Your task to perform on an android device: move a message to another label in the gmail app Image 0: 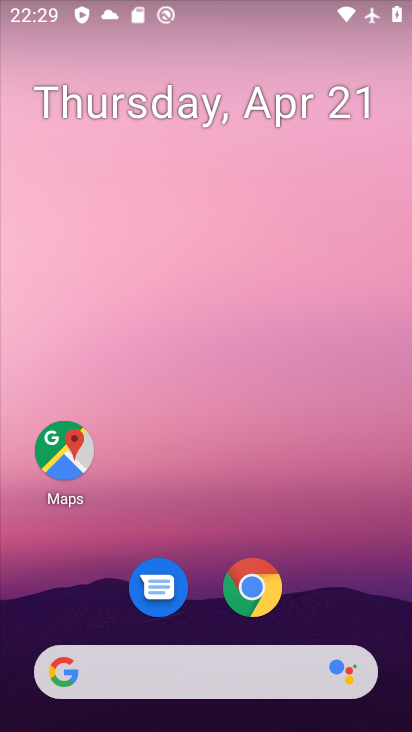
Step 0: drag from (356, 512) to (361, 255)
Your task to perform on an android device: move a message to another label in the gmail app Image 1: 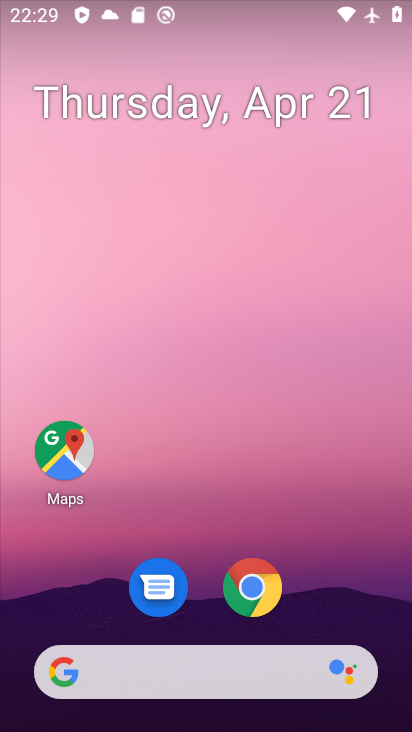
Step 1: drag from (348, 552) to (365, 237)
Your task to perform on an android device: move a message to another label in the gmail app Image 2: 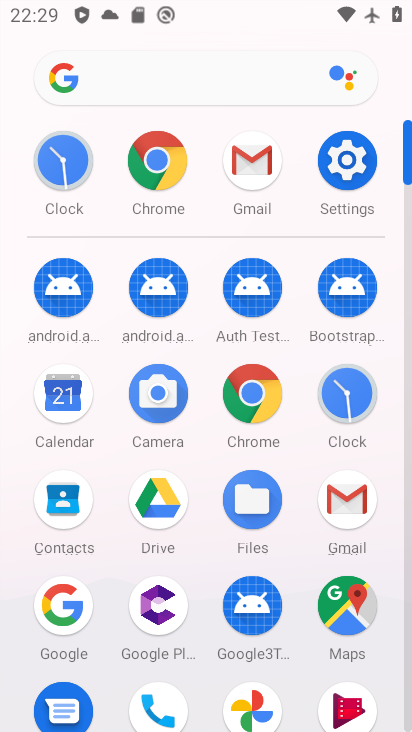
Step 2: click (350, 510)
Your task to perform on an android device: move a message to another label in the gmail app Image 3: 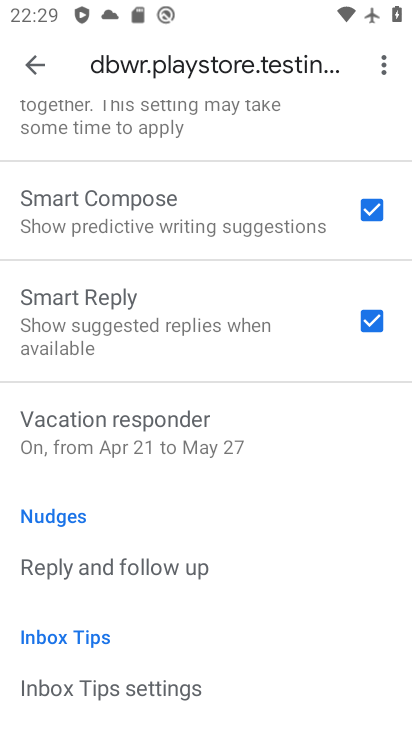
Step 3: click (31, 72)
Your task to perform on an android device: move a message to another label in the gmail app Image 4: 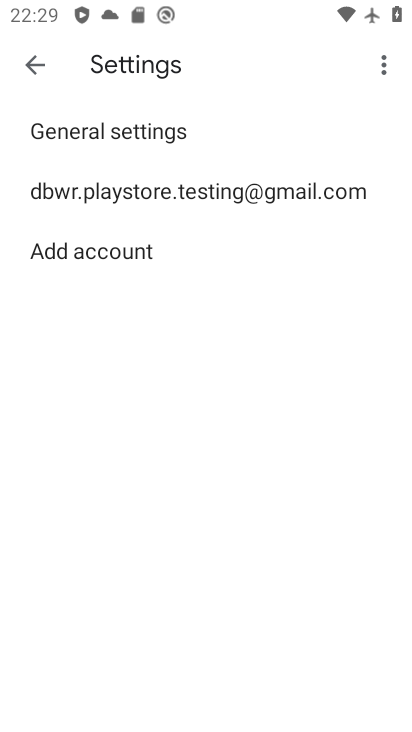
Step 4: click (31, 72)
Your task to perform on an android device: move a message to another label in the gmail app Image 5: 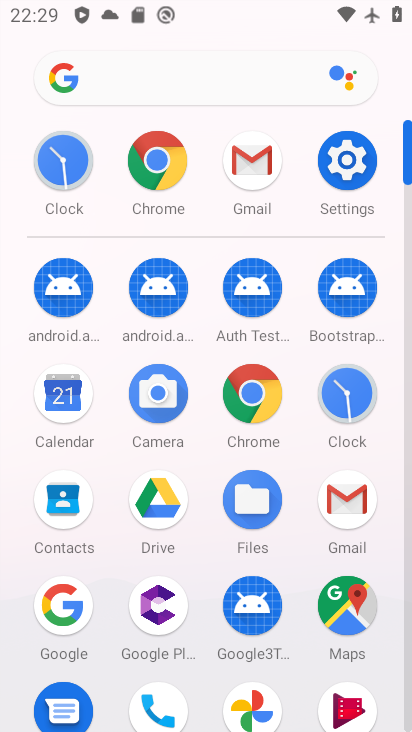
Step 5: click (256, 173)
Your task to perform on an android device: move a message to another label in the gmail app Image 6: 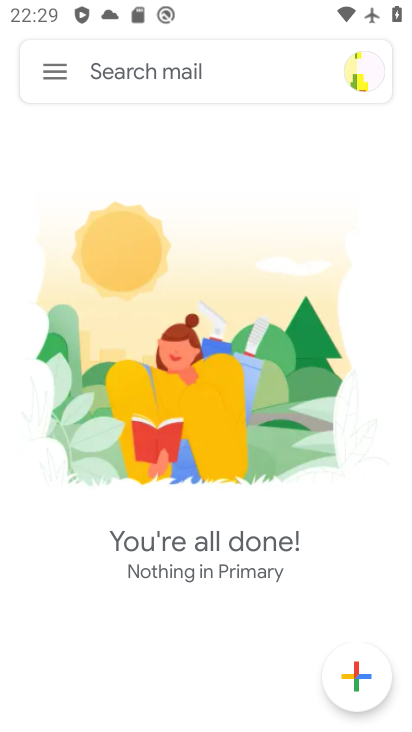
Step 6: task complete